Your task to perform on an android device: Open Wikipedia Image 0: 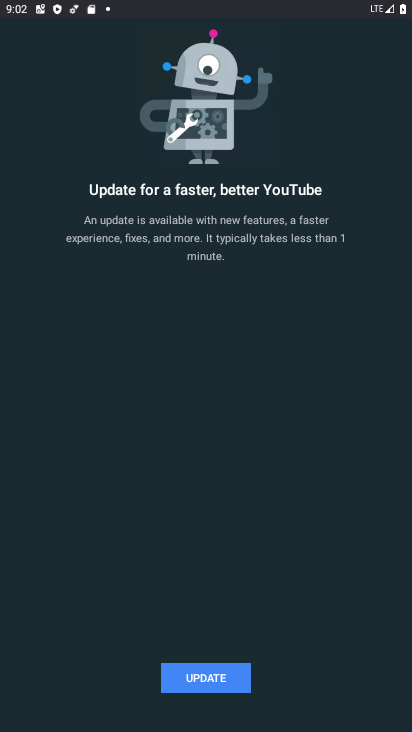
Step 0: press home button
Your task to perform on an android device: Open Wikipedia Image 1: 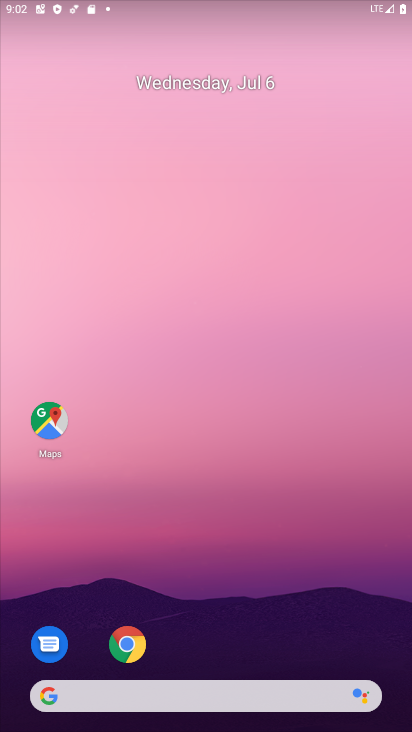
Step 1: drag from (225, 622) to (225, 146)
Your task to perform on an android device: Open Wikipedia Image 2: 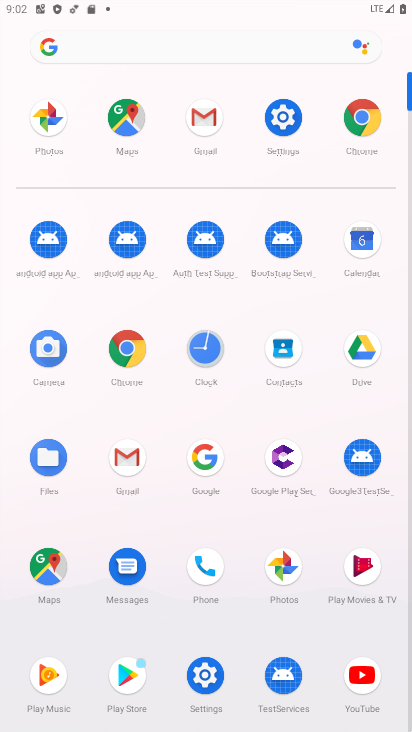
Step 2: click (208, 440)
Your task to perform on an android device: Open Wikipedia Image 3: 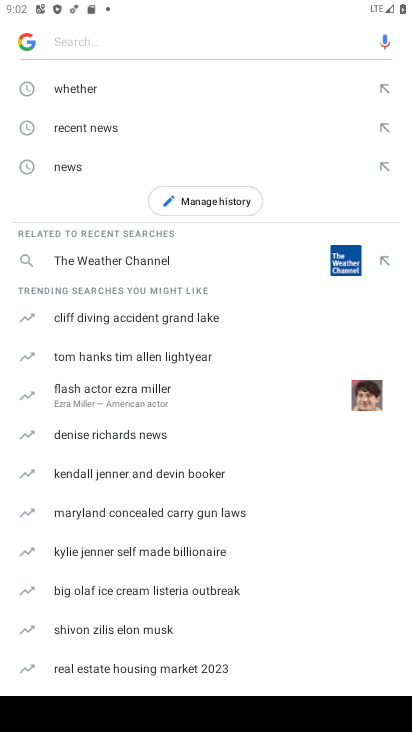
Step 3: click (202, 45)
Your task to perform on an android device: Open Wikipedia Image 4: 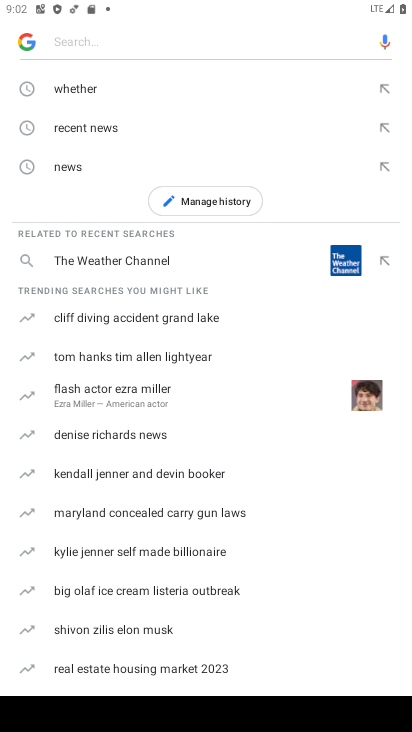
Step 4: type "Wikipedia"
Your task to perform on an android device: Open Wikipedia Image 5: 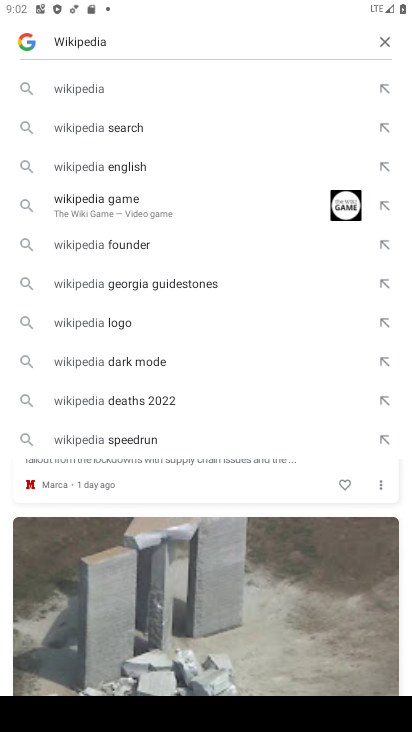
Step 5: click (90, 83)
Your task to perform on an android device: Open Wikipedia Image 6: 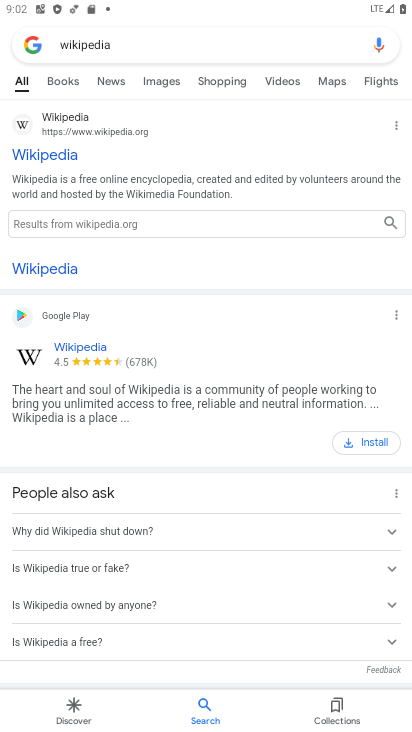
Step 6: click (74, 151)
Your task to perform on an android device: Open Wikipedia Image 7: 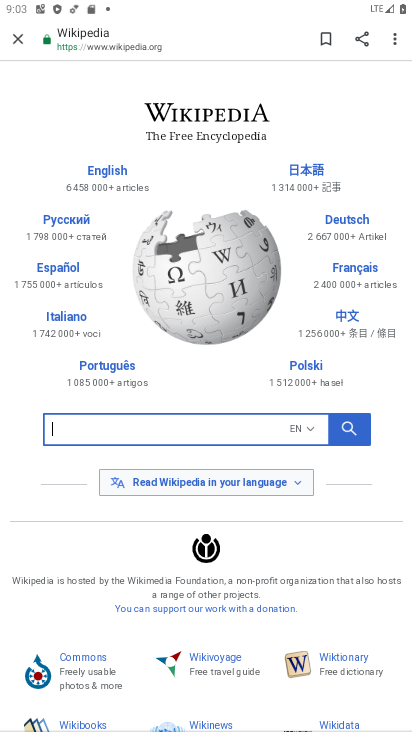
Step 7: task complete